Your task to perform on an android device: Go to network settings Image 0: 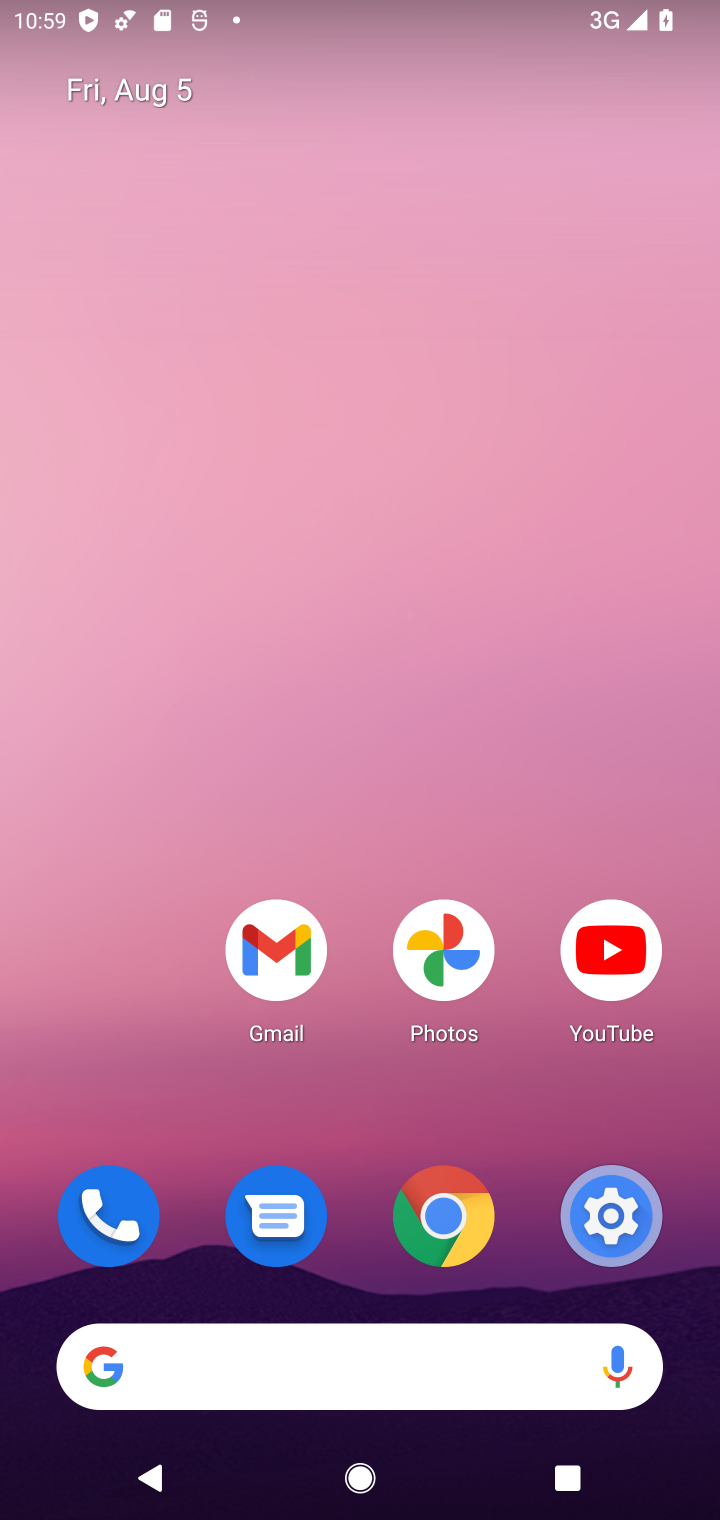
Step 0: drag from (435, 1341) to (471, 328)
Your task to perform on an android device: Go to network settings Image 1: 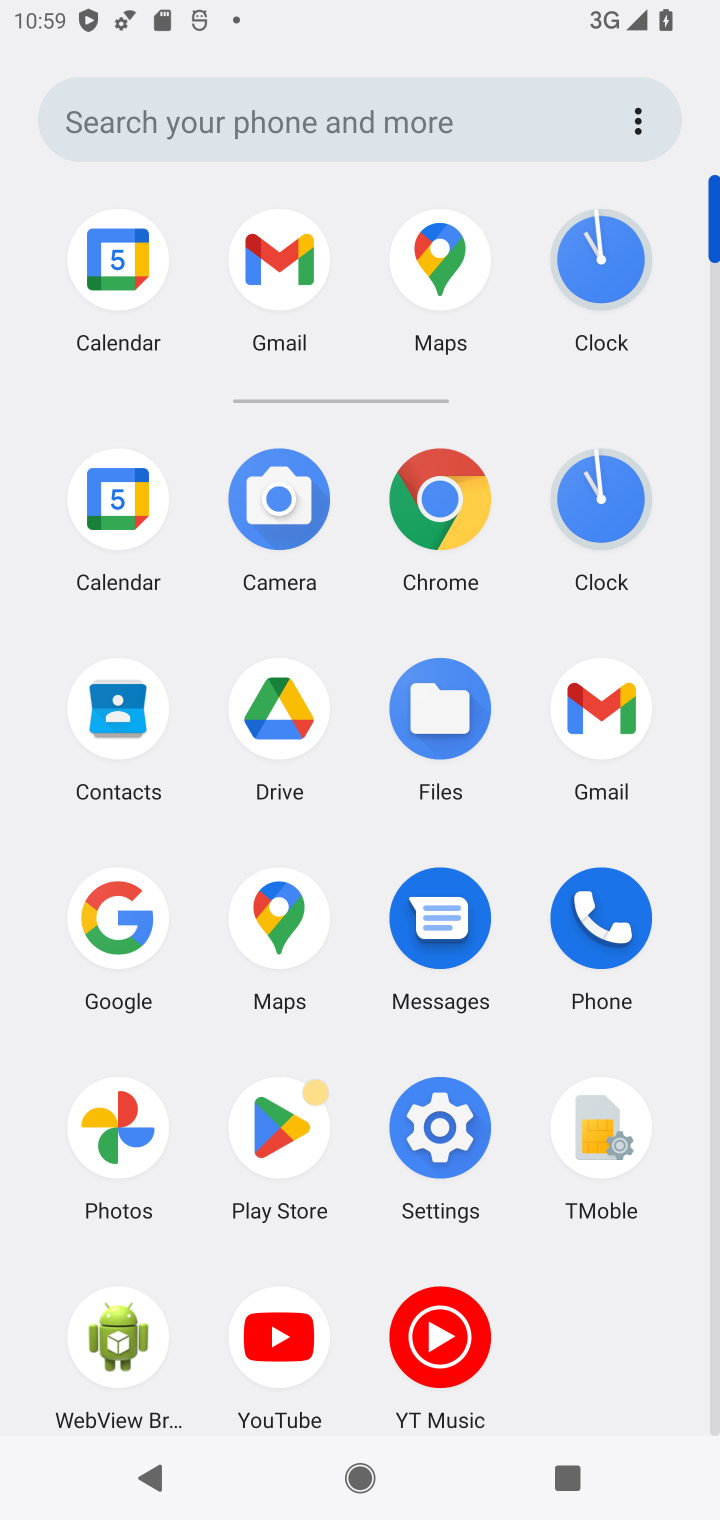
Step 1: click (455, 1119)
Your task to perform on an android device: Go to network settings Image 2: 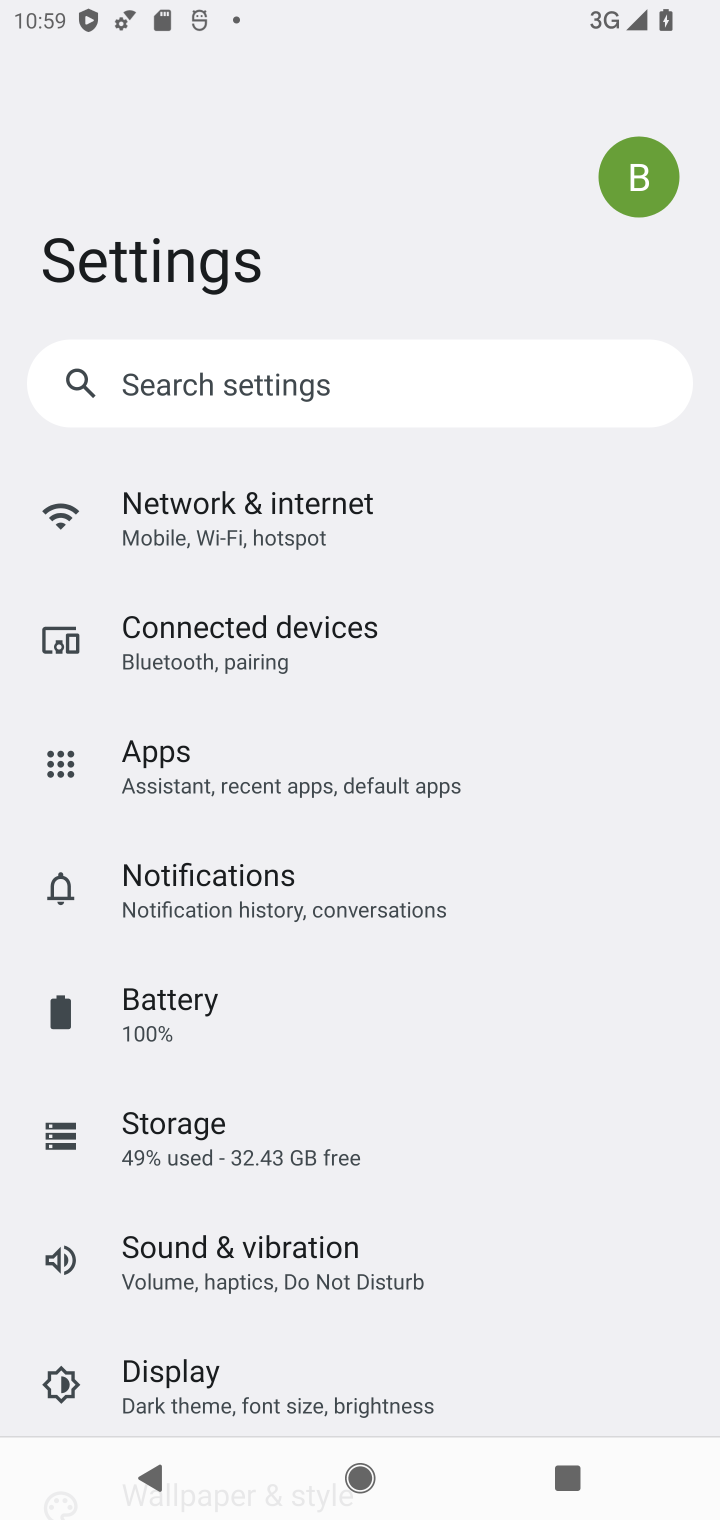
Step 2: click (294, 521)
Your task to perform on an android device: Go to network settings Image 3: 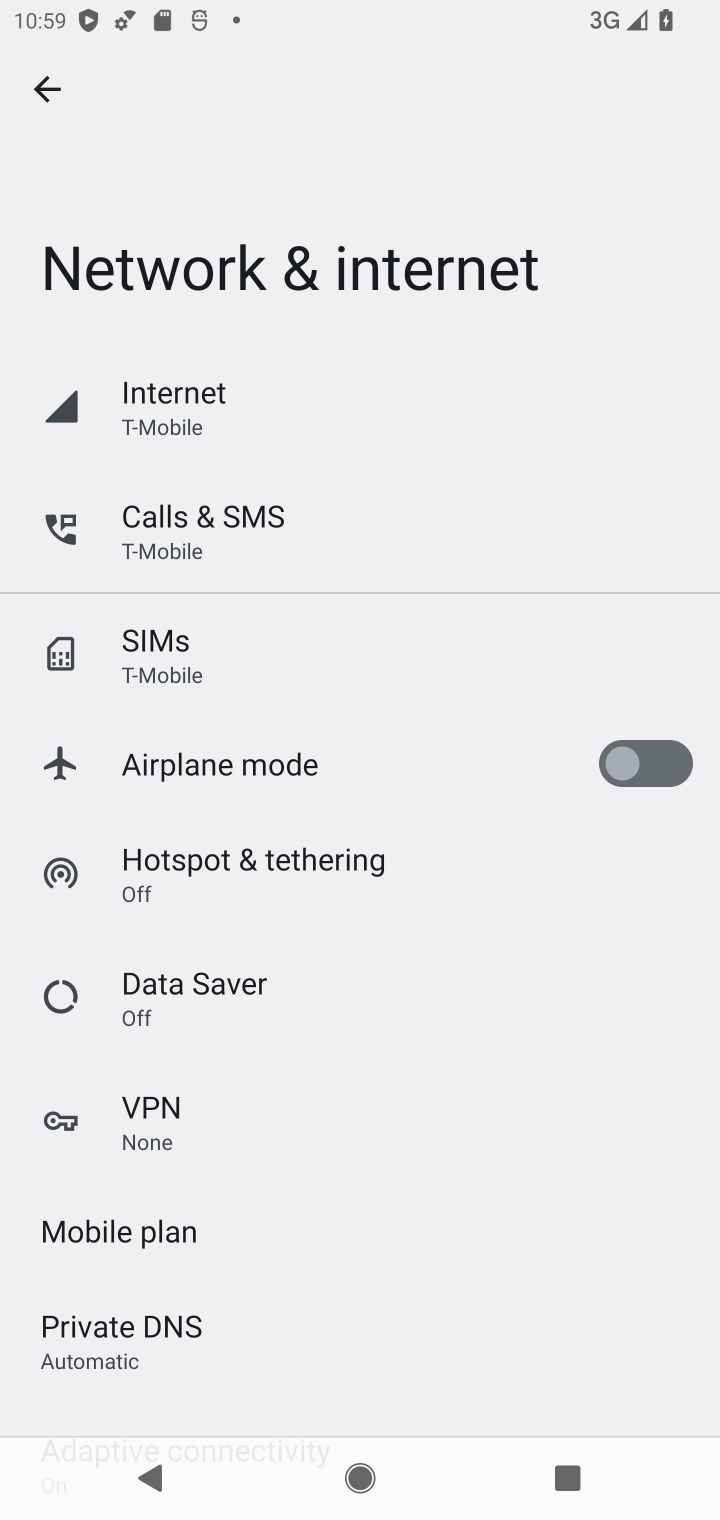
Step 3: task complete